Your task to perform on an android device: Install the Wikipedia app Image 0: 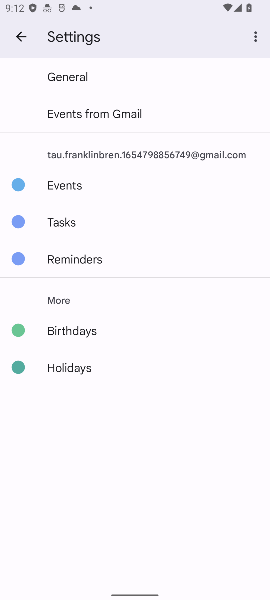
Step 0: press home button
Your task to perform on an android device: Install the Wikipedia app Image 1: 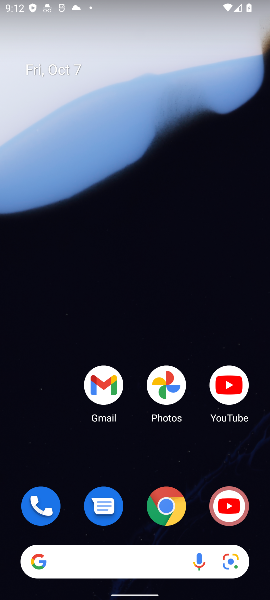
Step 1: drag from (136, 562) to (216, 116)
Your task to perform on an android device: Install the Wikipedia app Image 2: 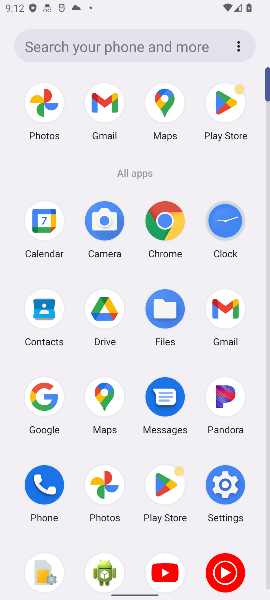
Step 2: click (226, 99)
Your task to perform on an android device: Install the Wikipedia app Image 3: 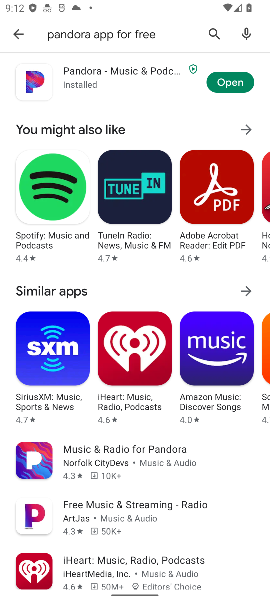
Step 3: click (211, 30)
Your task to perform on an android device: Install the Wikipedia app Image 4: 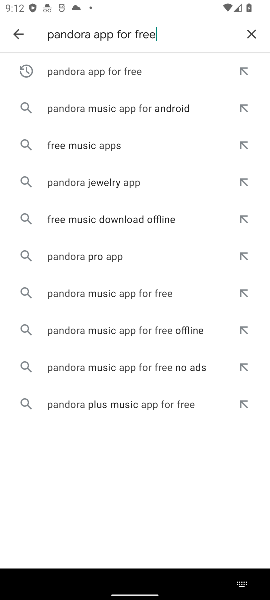
Step 4: click (250, 31)
Your task to perform on an android device: Install the Wikipedia app Image 5: 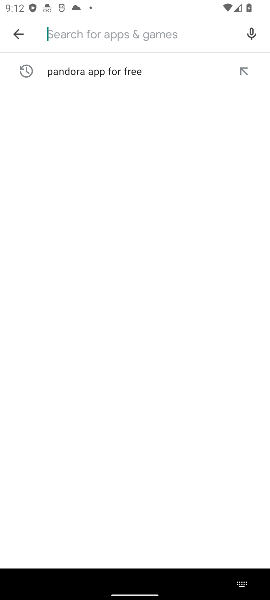
Step 5: type " Wikipedia app"
Your task to perform on an android device: Install the Wikipedia app Image 6: 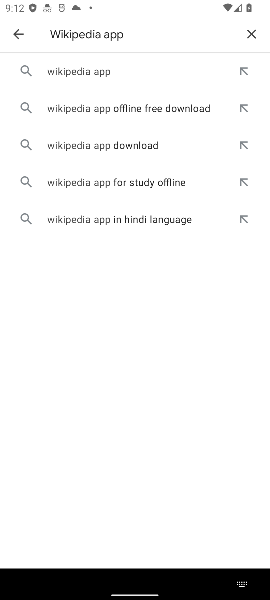
Step 6: click (91, 68)
Your task to perform on an android device: Install the Wikipedia app Image 7: 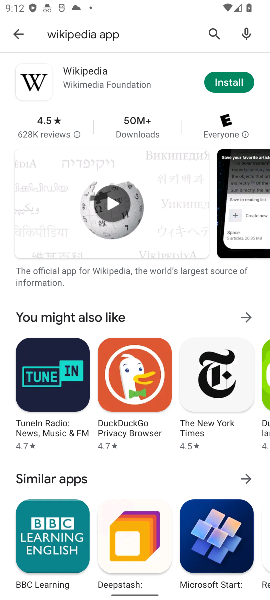
Step 7: click (230, 82)
Your task to perform on an android device: Install the Wikipedia app Image 8: 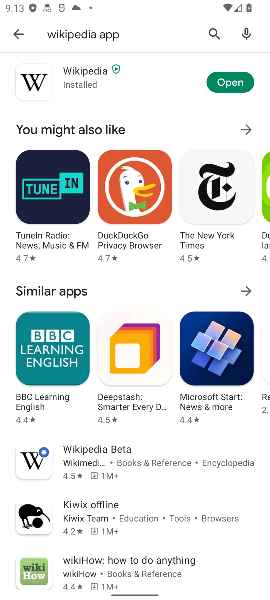
Step 8: task complete